Your task to perform on an android device: Clear all items from cart on newegg. Add acer nitro to the cart on newegg Image 0: 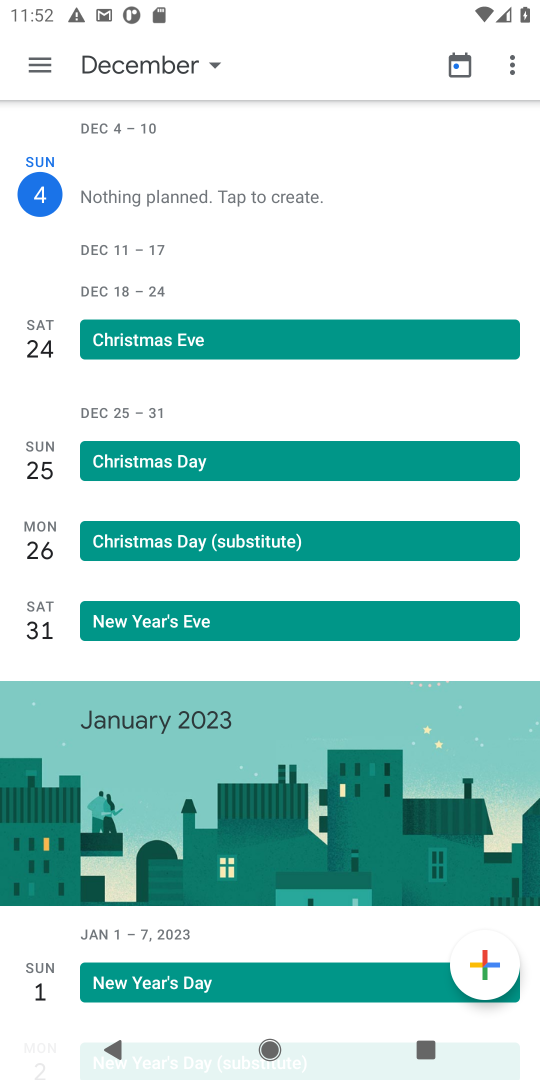
Step 0: press home button
Your task to perform on an android device: Clear all items from cart on newegg. Add acer nitro to the cart on newegg Image 1: 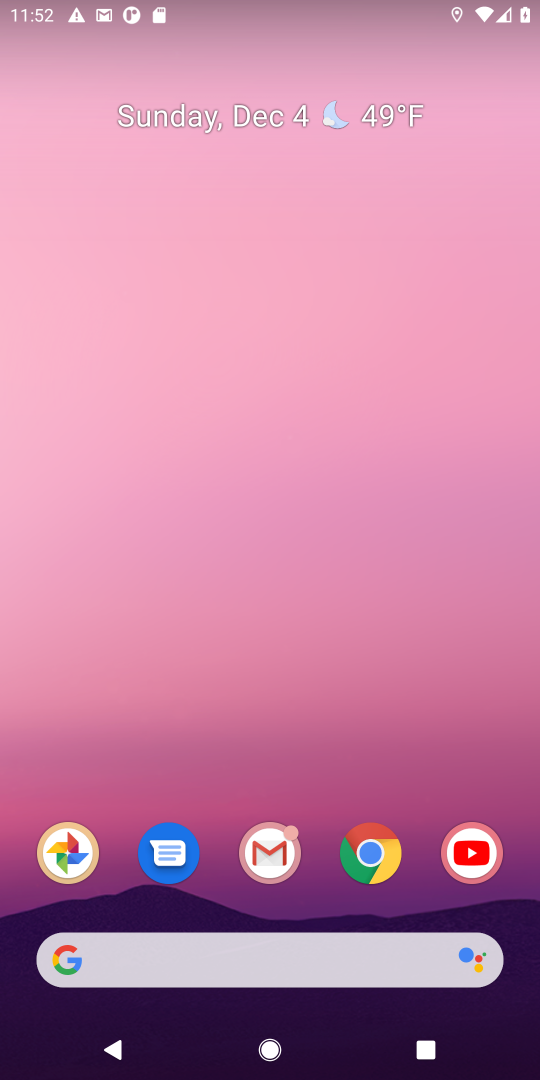
Step 1: click (362, 858)
Your task to perform on an android device: Clear all items from cart on newegg. Add acer nitro to the cart on newegg Image 2: 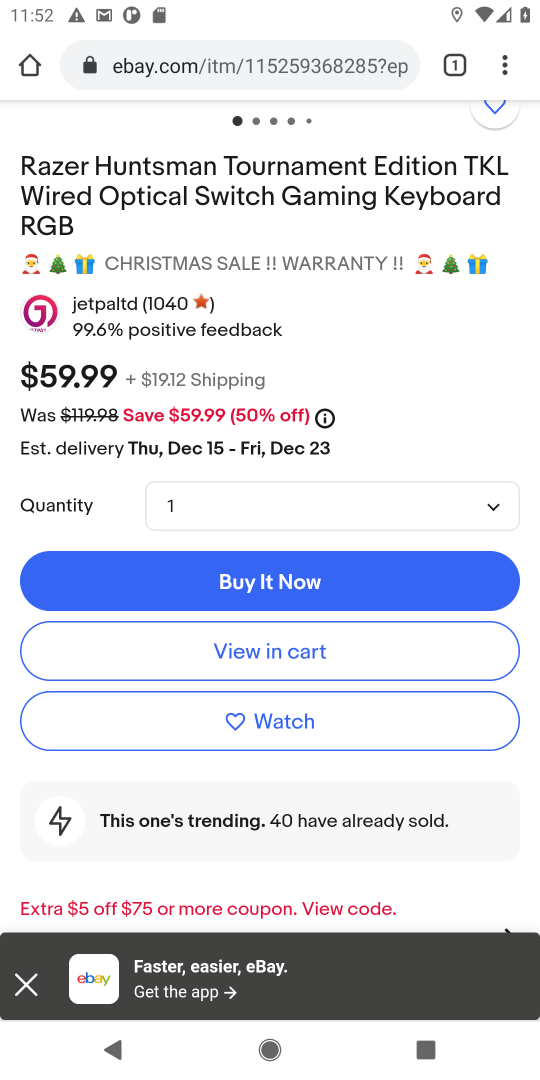
Step 2: click (362, 858)
Your task to perform on an android device: Clear all items from cart on newegg. Add acer nitro to the cart on newegg Image 3: 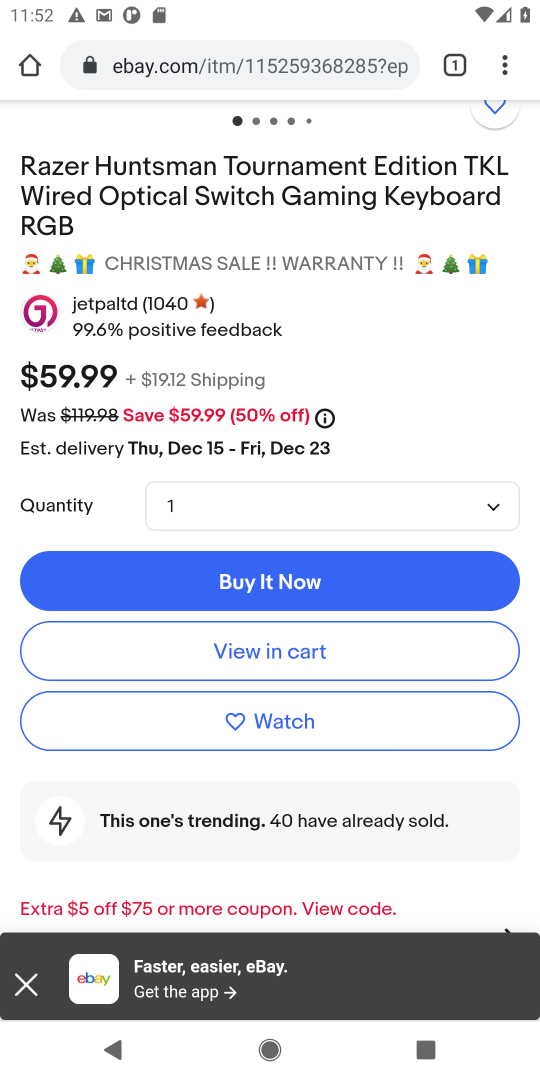
Step 3: click (196, 61)
Your task to perform on an android device: Clear all items from cart on newegg. Add acer nitro to the cart on newegg Image 4: 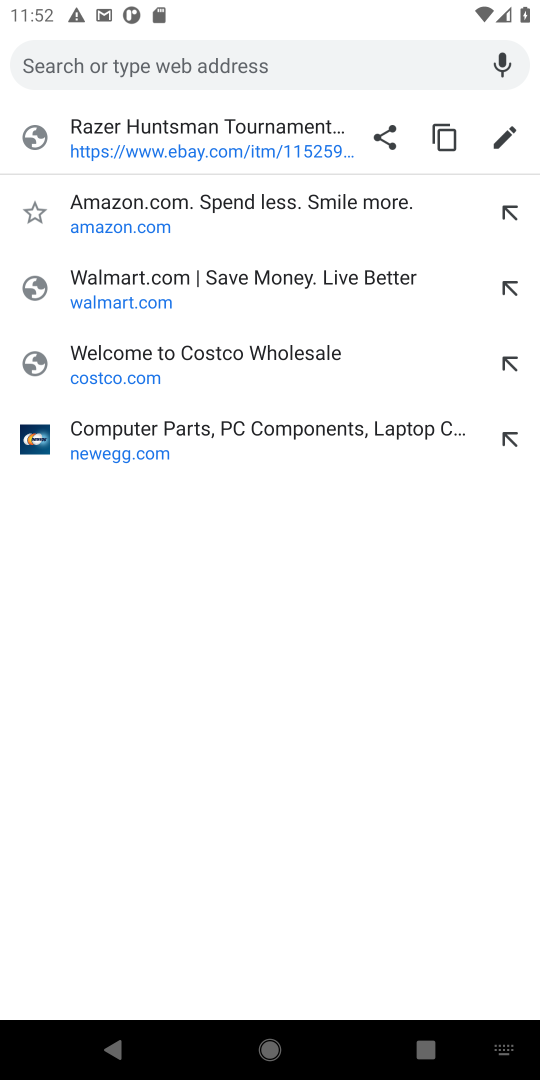
Step 4: click (132, 424)
Your task to perform on an android device: Clear all items from cart on newegg. Add acer nitro to the cart on newegg Image 5: 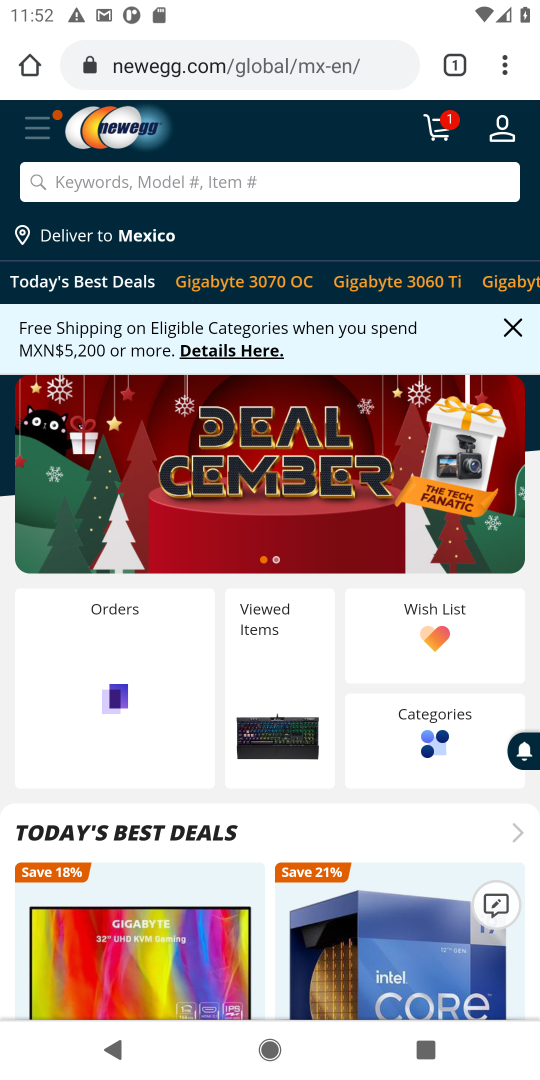
Step 5: click (426, 123)
Your task to perform on an android device: Clear all items from cart on newegg. Add acer nitro to the cart on newegg Image 6: 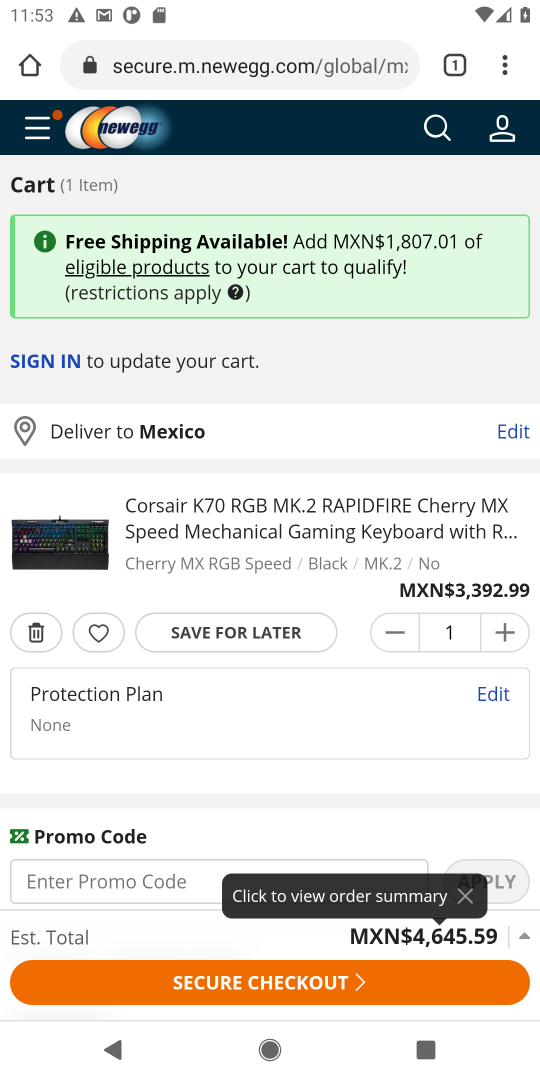
Step 6: click (26, 640)
Your task to perform on an android device: Clear all items from cart on newegg. Add acer nitro to the cart on newegg Image 7: 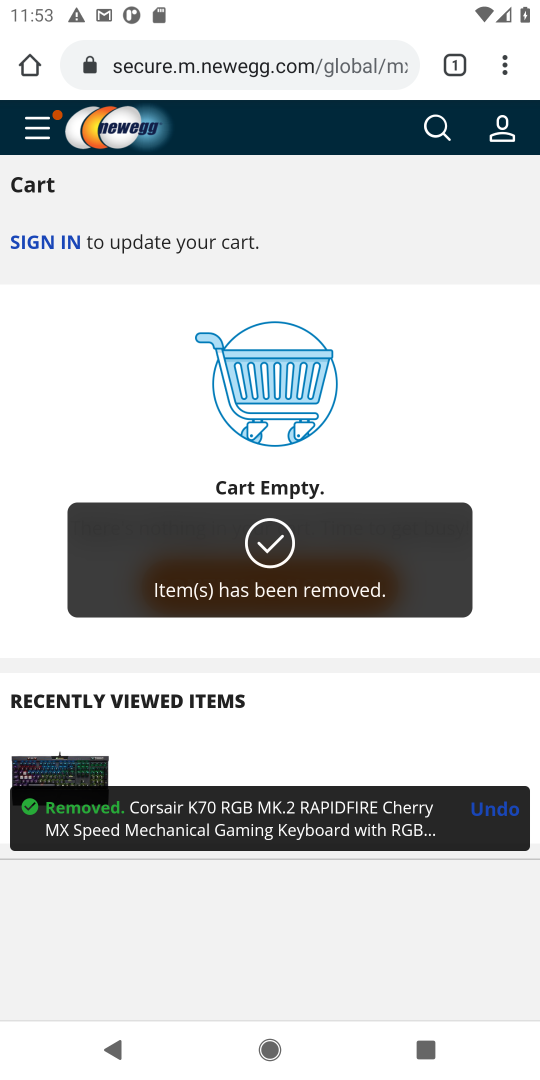
Step 7: click (444, 121)
Your task to perform on an android device: Clear all items from cart on newegg. Add acer nitro to the cart on newegg Image 8: 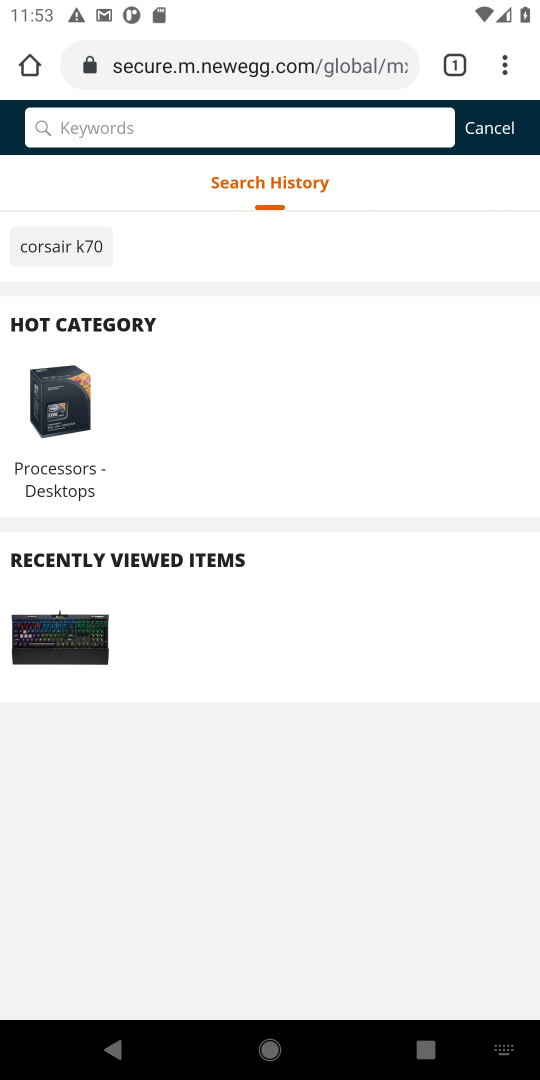
Step 8: type "acer nitro"
Your task to perform on an android device: Clear all items from cart on newegg. Add acer nitro to the cart on newegg Image 9: 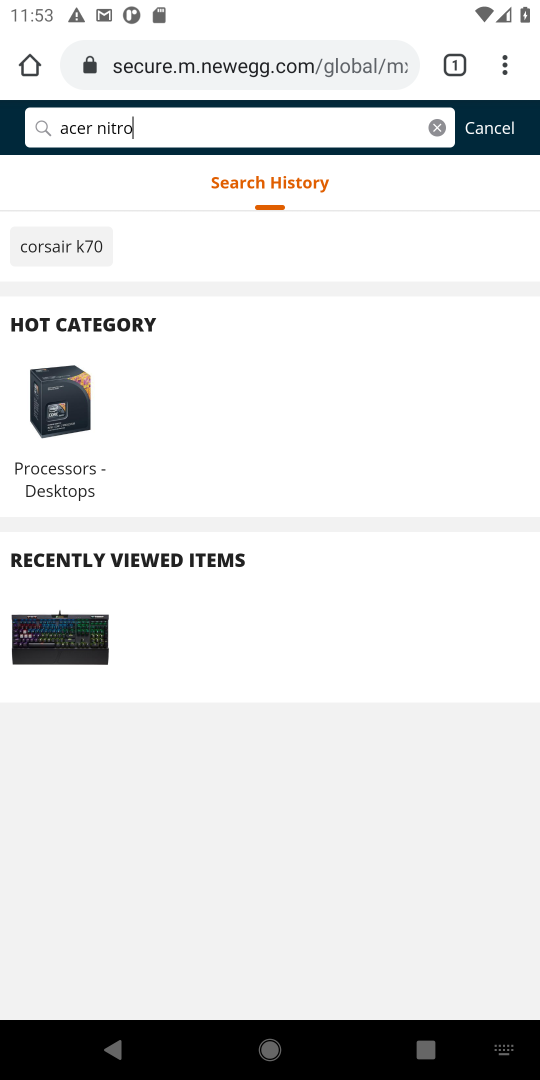
Step 9: type ""
Your task to perform on an android device: Clear all items from cart on newegg. Add acer nitro to the cart on newegg Image 10: 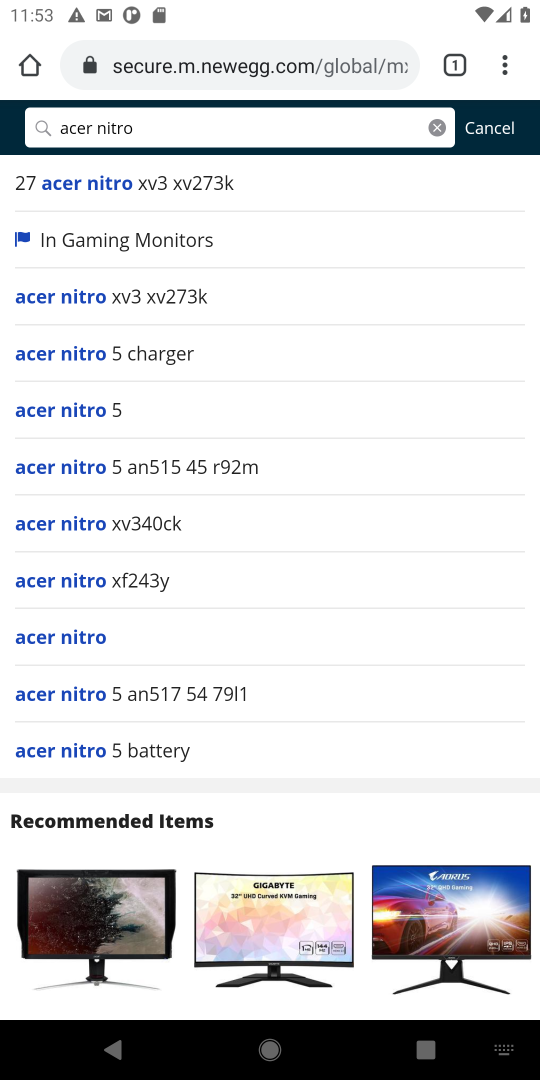
Step 10: click (125, 624)
Your task to perform on an android device: Clear all items from cart on newegg. Add acer nitro to the cart on newegg Image 11: 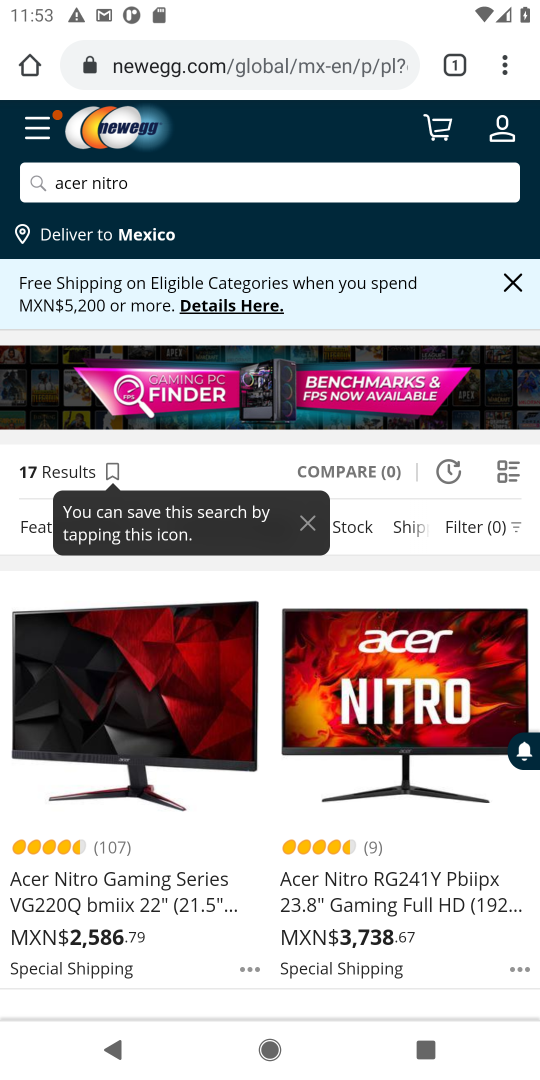
Step 11: click (107, 904)
Your task to perform on an android device: Clear all items from cart on newegg. Add acer nitro to the cart on newegg Image 12: 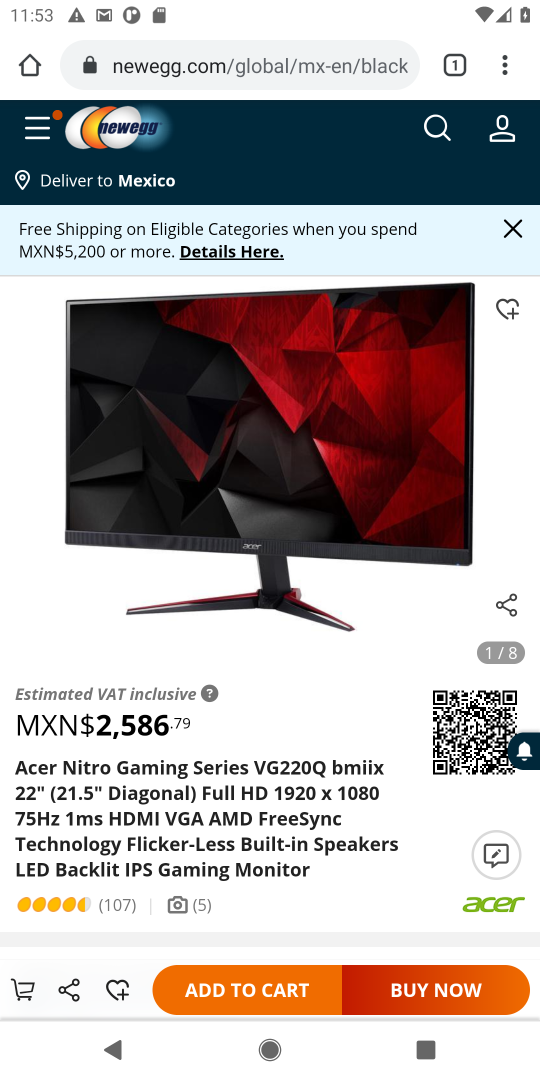
Step 12: click (264, 996)
Your task to perform on an android device: Clear all items from cart on newegg. Add acer nitro to the cart on newegg Image 13: 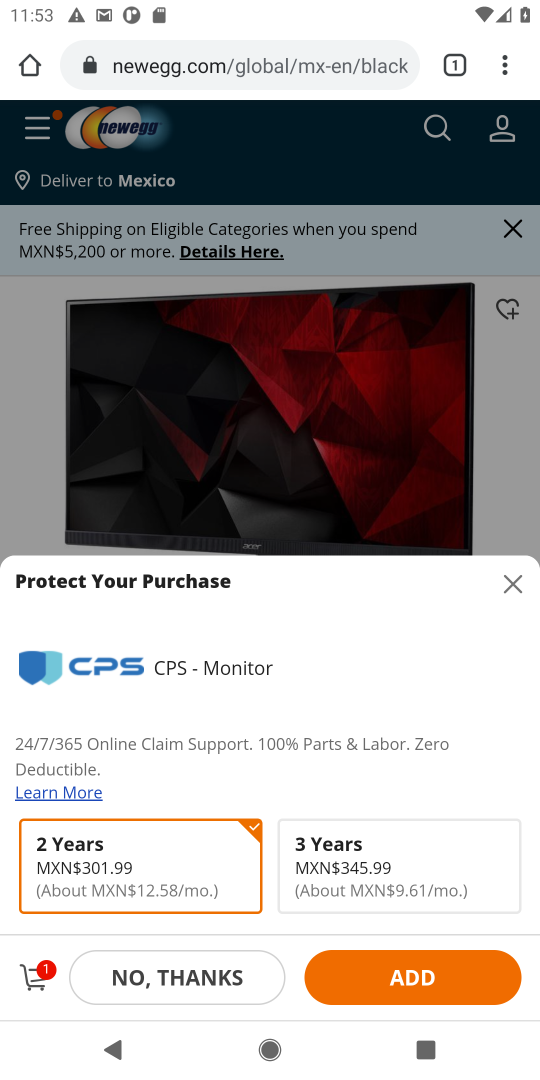
Step 13: click (219, 995)
Your task to perform on an android device: Clear all items from cart on newegg. Add acer nitro to the cart on newegg Image 14: 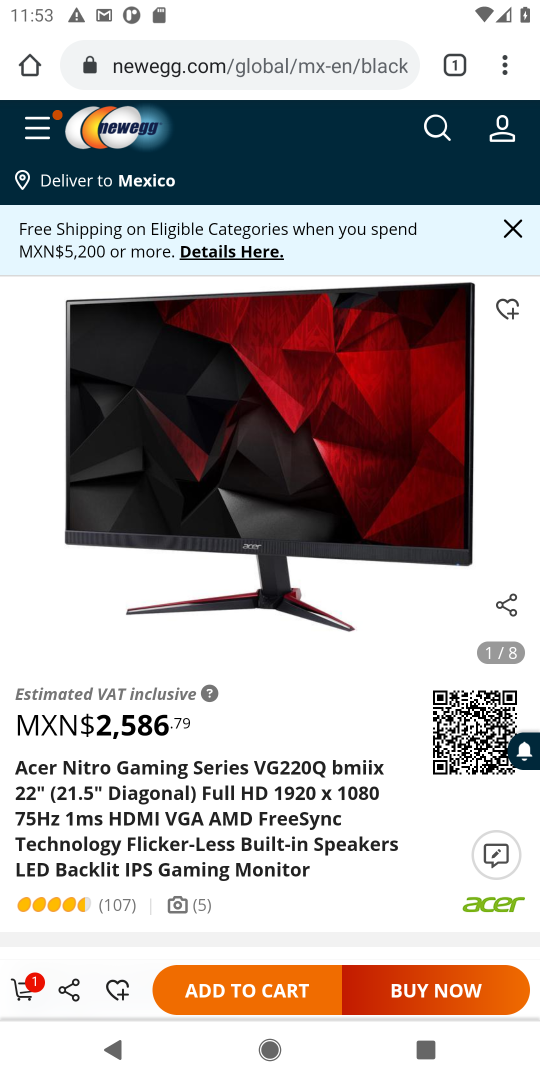
Step 14: task complete